Your task to perform on an android device: When is my next appointment? Image 0: 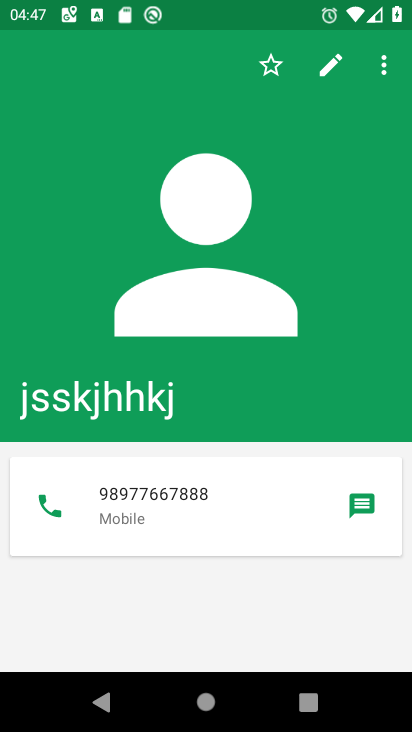
Step 0: press home button
Your task to perform on an android device: When is my next appointment? Image 1: 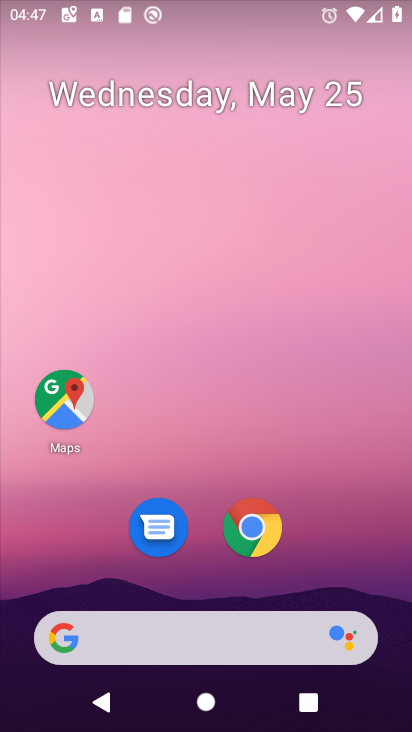
Step 1: drag from (299, 535) to (294, 88)
Your task to perform on an android device: When is my next appointment? Image 2: 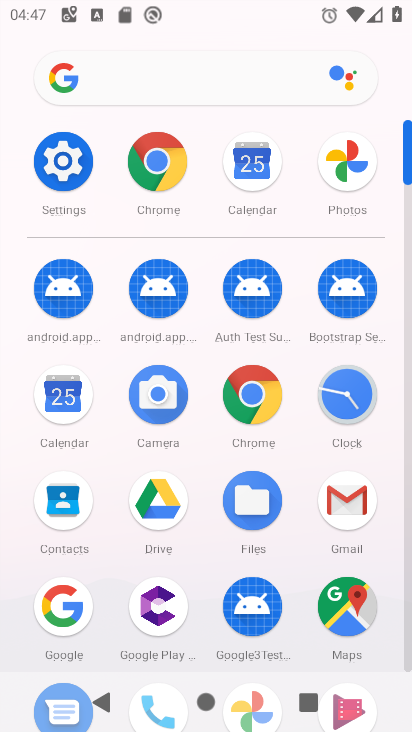
Step 2: click (61, 403)
Your task to perform on an android device: When is my next appointment? Image 3: 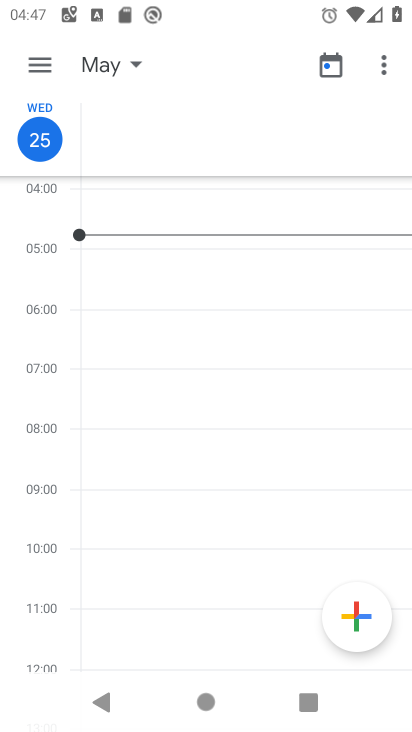
Step 3: click (33, 64)
Your task to perform on an android device: When is my next appointment? Image 4: 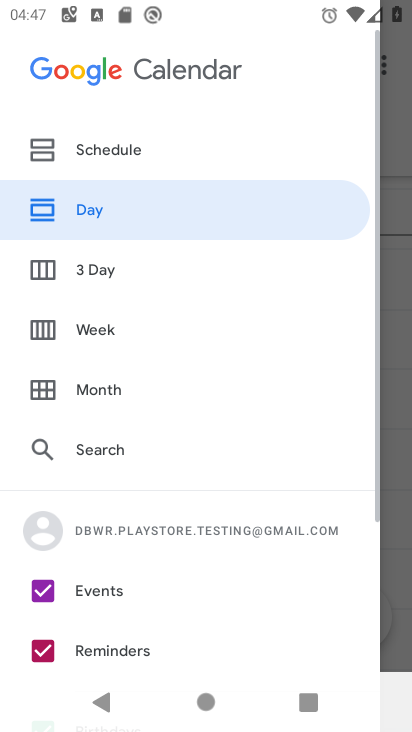
Step 4: drag from (268, 579) to (248, 367)
Your task to perform on an android device: When is my next appointment? Image 5: 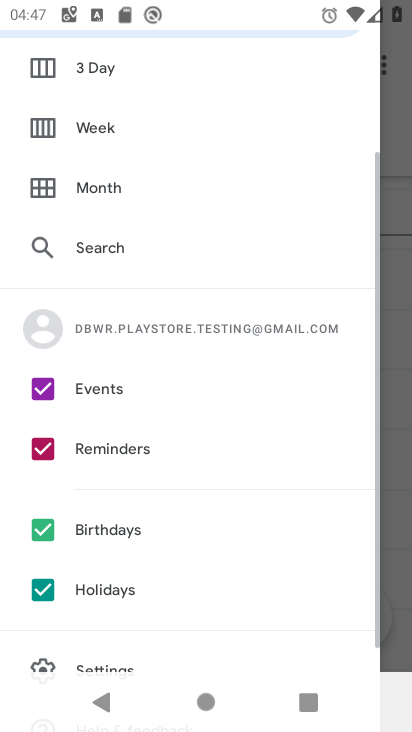
Step 5: drag from (276, 577) to (269, 315)
Your task to perform on an android device: When is my next appointment? Image 6: 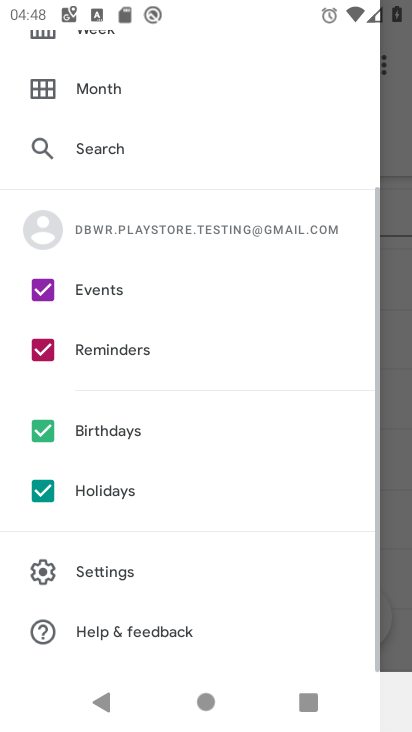
Step 6: click (406, 417)
Your task to perform on an android device: When is my next appointment? Image 7: 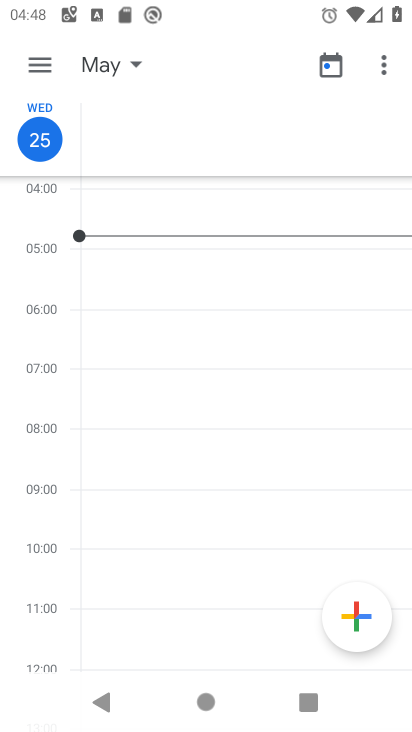
Step 7: click (154, 130)
Your task to perform on an android device: When is my next appointment? Image 8: 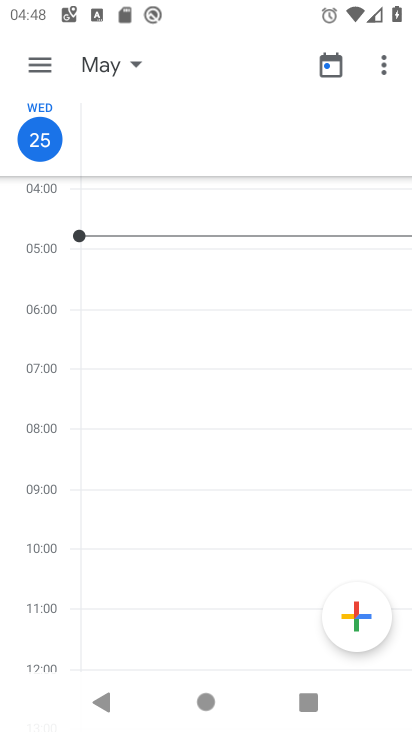
Step 8: click (152, 127)
Your task to perform on an android device: When is my next appointment? Image 9: 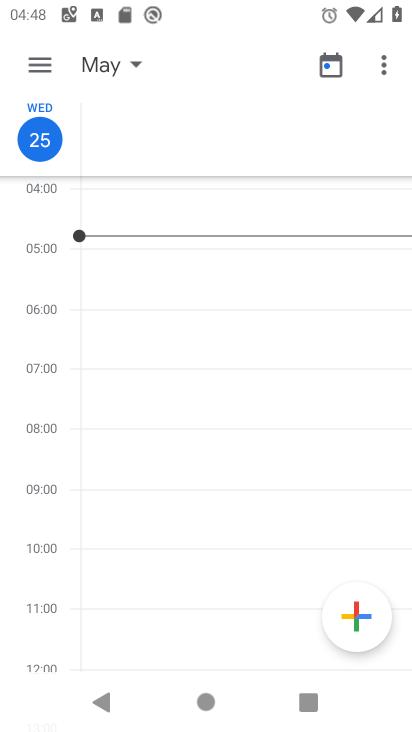
Step 9: click (124, 62)
Your task to perform on an android device: When is my next appointment? Image 10: 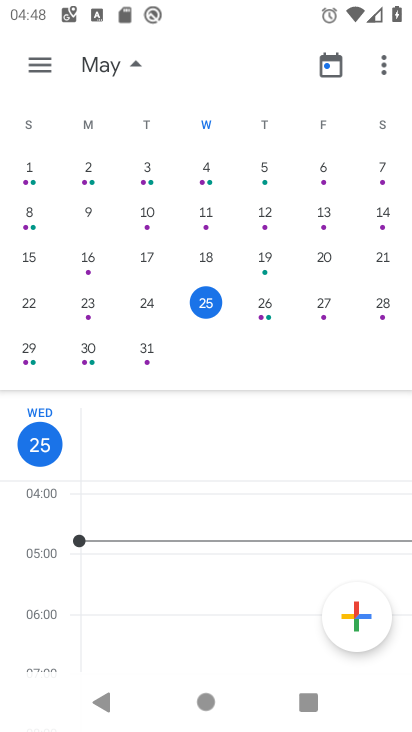
Step 10: task complete